Your task to perform on an android device: turn on bluetooth scan Image 0: 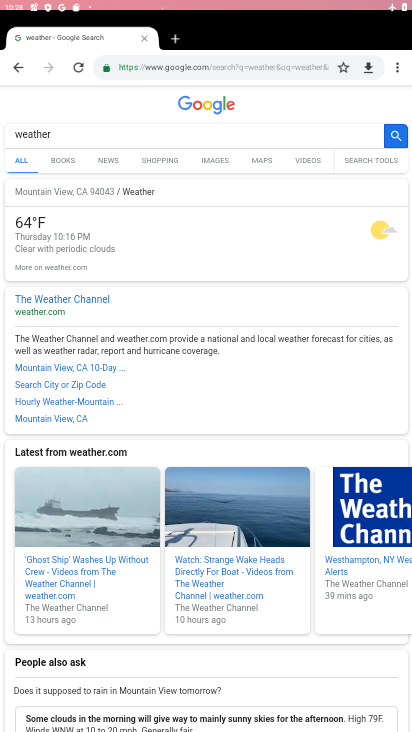
Step 0: click (234, 155)
Your task to perform on an android device: turn on bluetooth scan Image 1: 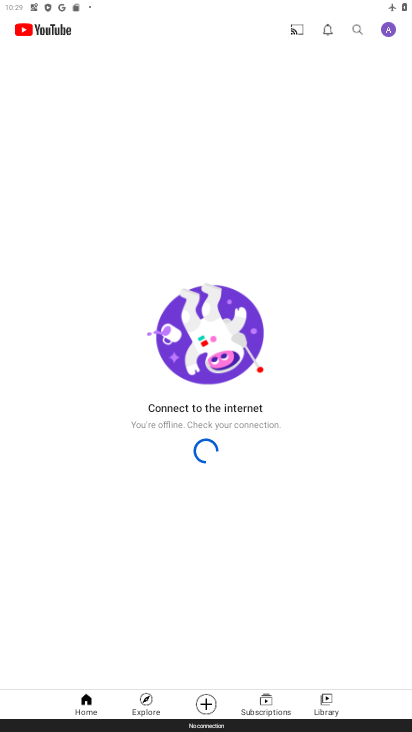
Step 1: press home button
Your task to perform on an android device: turn on bluetooth scan Image 2: 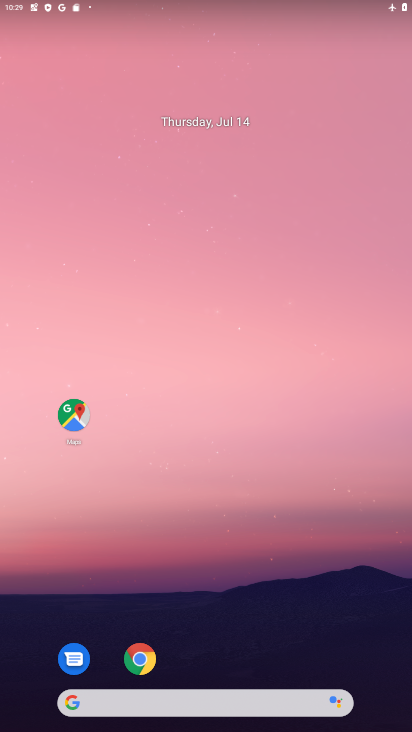
Step 2: drag from (286, 648) to (258, 185)
Your task to perform on an android device: turn on bluetooth scan Image 3: 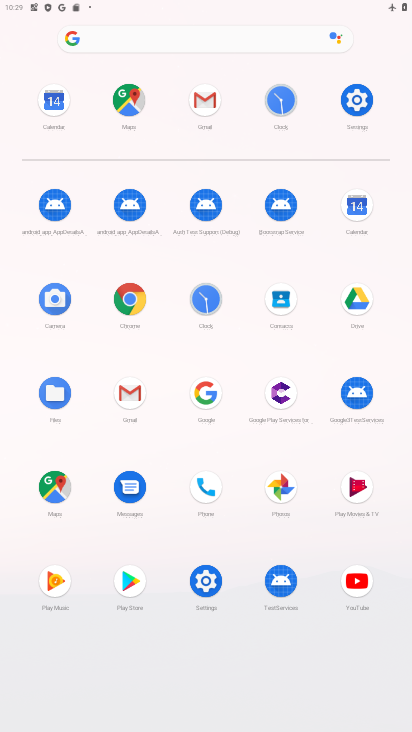
Step 3: click (365, 111)
Your task to perform on an android device: turn on bluetooth scan Image 4: 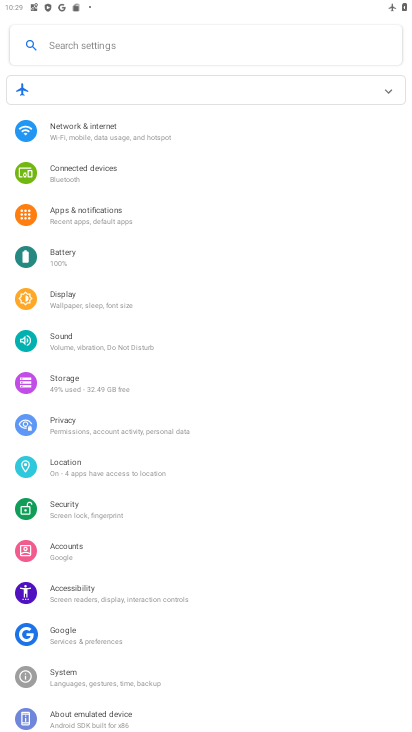
Step 4: click (78, 468)
Your task to perform on an android device: turn on bluetooth scan Image 5: 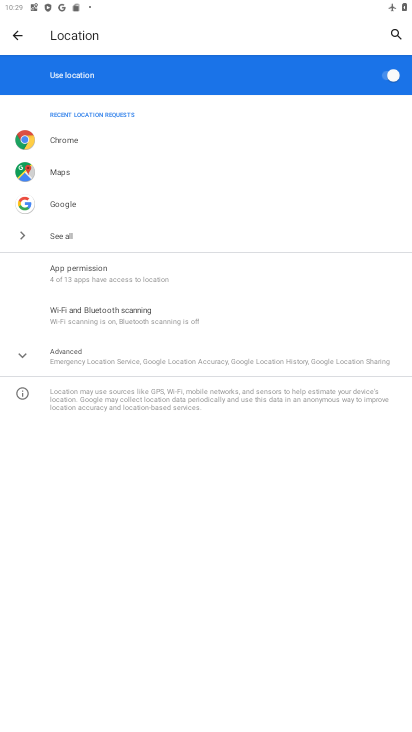
Step 5: click (99, 319)
Your task to perform on an android device: turn on bluetooth scan Image 6: 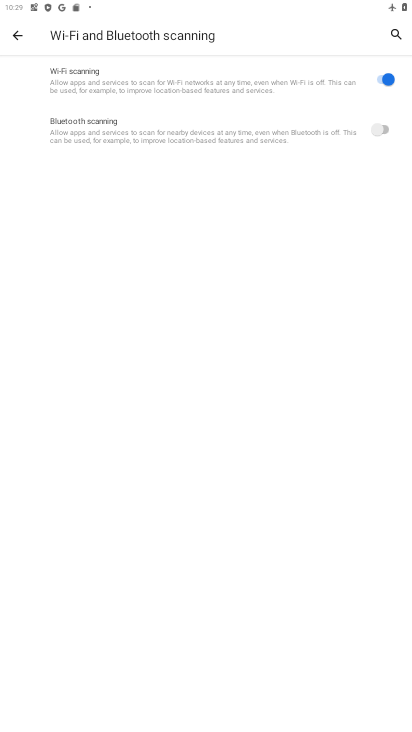
Step 6: click (374, 80)
Your task to perform on an android device: turn on bluetooth scan Image 7: 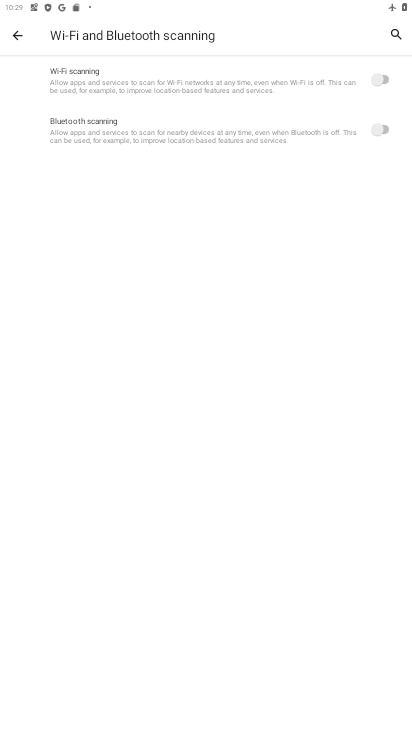
Step 7: click (375, 127)
Your task to perform on an android device: turn on bluetooth scan Image 8: 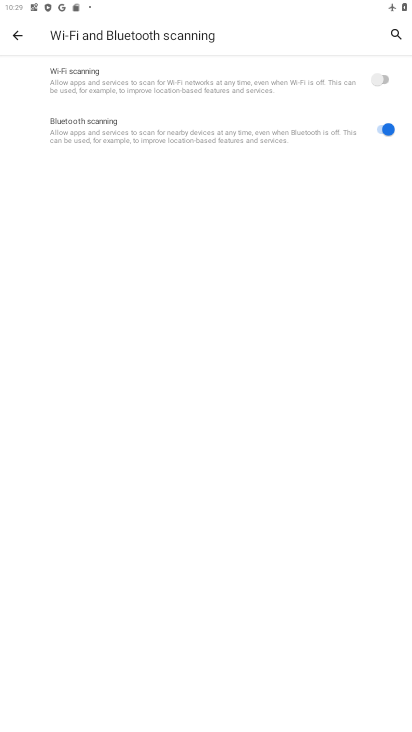
Step 8: task complete